Your task to perform on an android device: turn off location history Image 0: 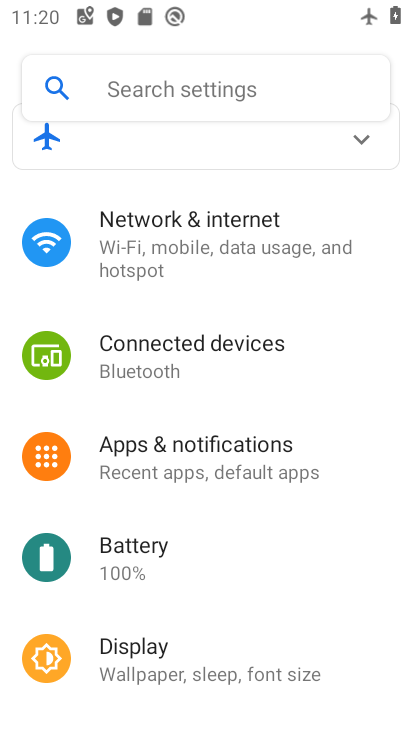
Step 0: drag from (384, 564) to (381, 438)
Your task to perform on an android device: turn off location history Image 1: 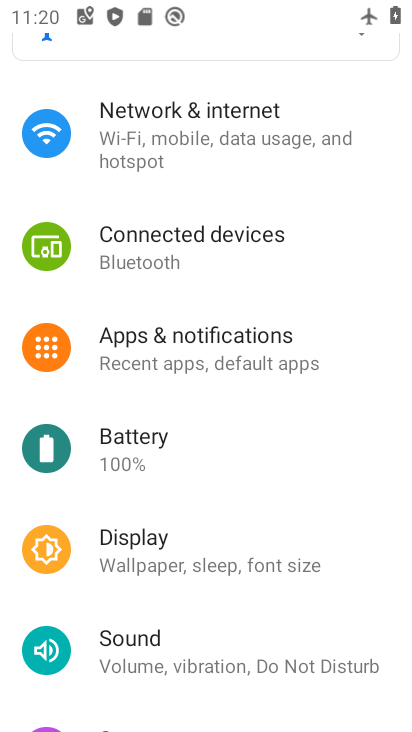
Step 1: drag from (376, 624) to (369, 477)
Your task to perform on an android device: turn off location history Image 2: 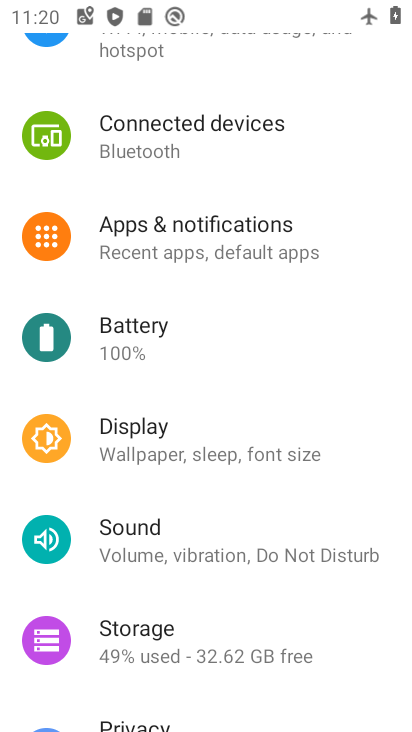
Step 2: drag from (362, 653) to (361, 500)
Your task to perform on an android device: turn off location history Image 3: 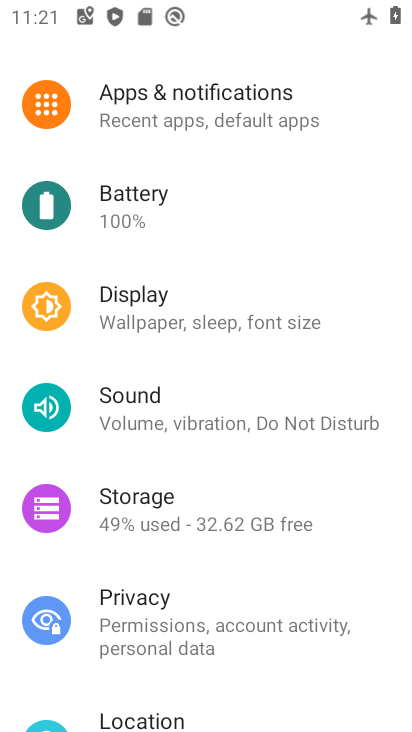
Step 3: drag from (366, 542) to (377, 364)
Your task to perform on an android device: turn off location history Image 4: 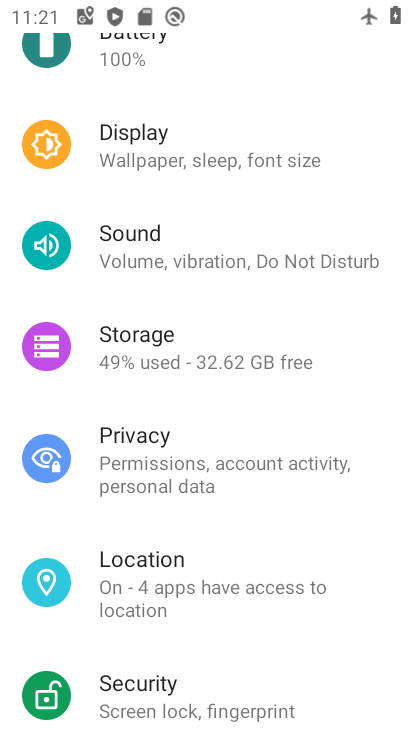
Step 4: drag from (339, 616) to (351, 342)
Your task to perform on an android device: turn off location history Image 5: 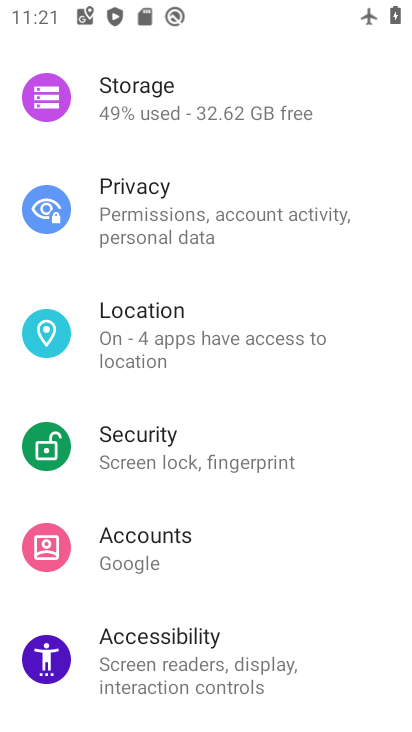
Step 5: drag from (340, 578) to (353, 393)
Your task to perform on an android device: turn off location history Image 6: 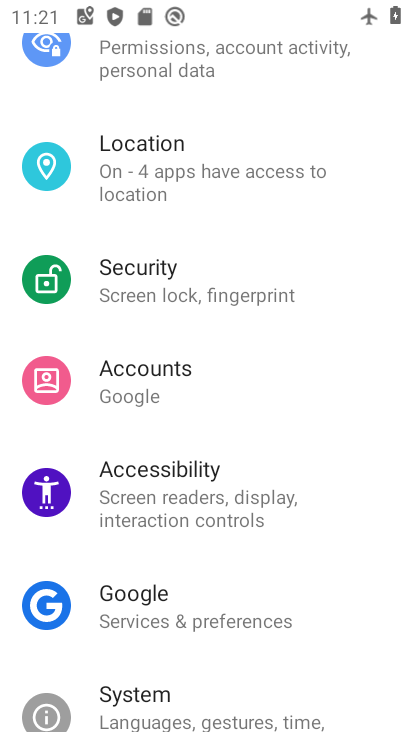
Step 6: click (228, 170)
Your task to perform on an android device: turn off location history Image 7: 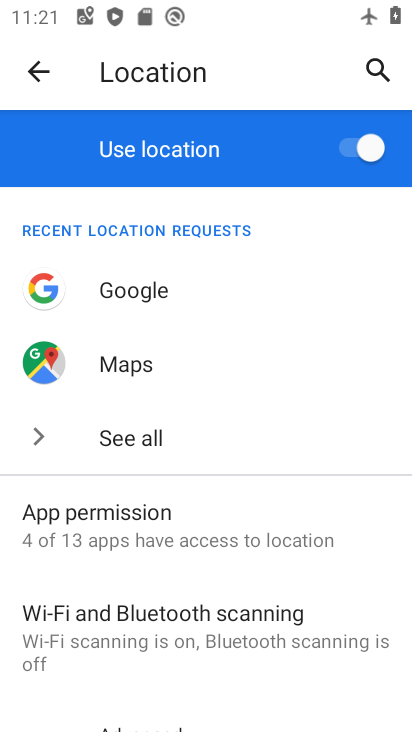
Step 7: drag from (309, 593) to (322, 418)
Your task to perform on an android device: turn off location history Image 8: 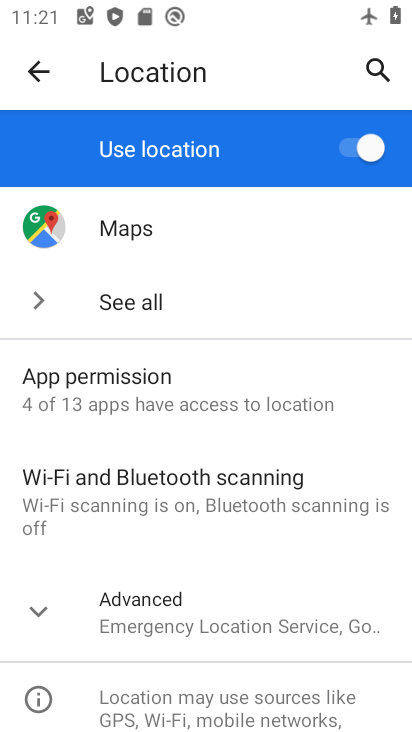
Step 8: click (358, 155)
Your task to perform on an android device: turn off location history Image 9: 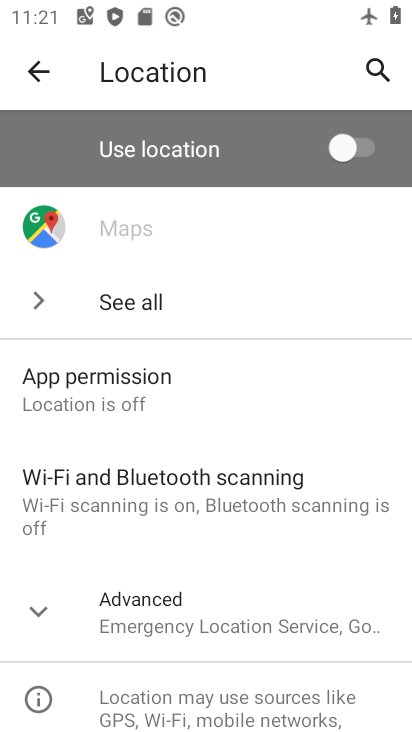
Step 9: task complete